Your task to perform on an android device: Go to eBay Image 0: 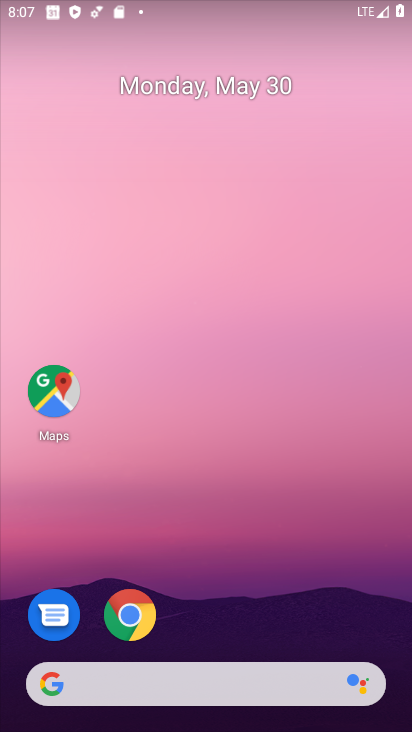
Step 0: click (112, 617)
Your task to perform on an android device: Go to eBay Image 1: 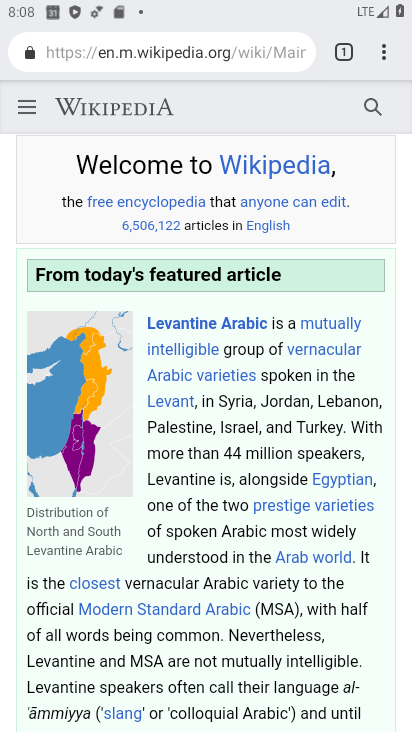
Step 1: click (350, 54)
Your task to perform on an android device: Go to eBay Image 2: 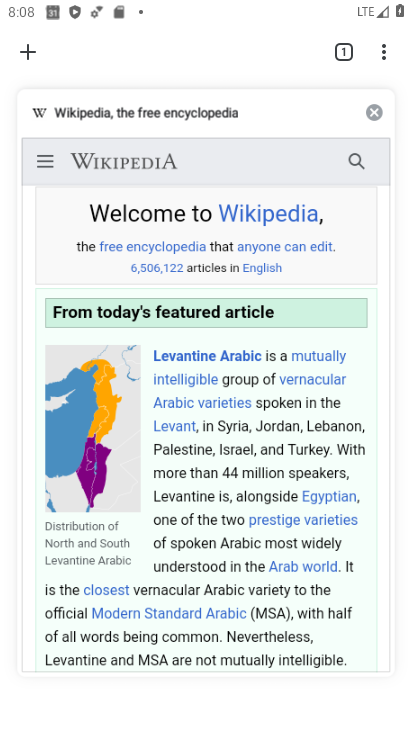
Step 2: click (369, 106)
Your task to perform on an android device: Go to eBay Image 3: 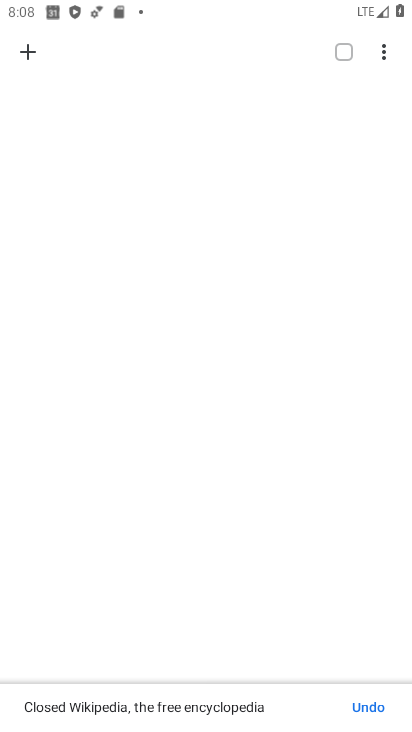
Step 3: click (27, 60)
Your task to perform on an android device: Go to eBay Image 4: 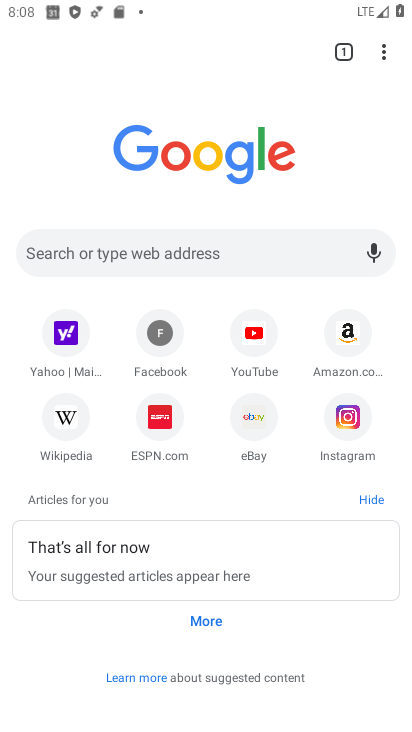
Step 4: click (247, 423)
Your task to perform on an android device: Go to eBay Image 5: 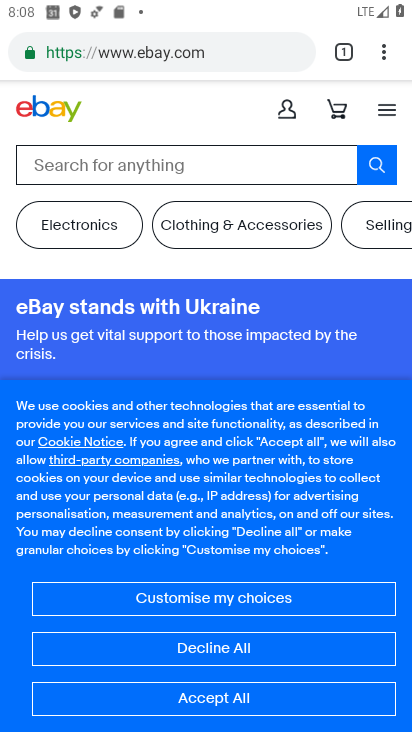
Step 5: click (270, 700)
Your task to perform on an android device: Go to eBay Image 6: 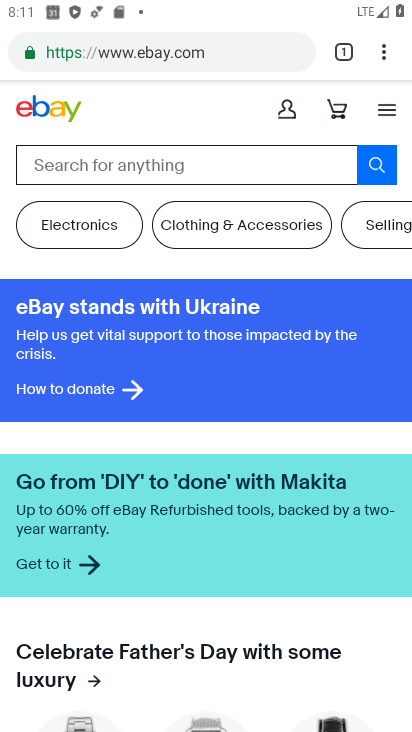
Step 6: task complete